Your task to perform on an android device: Search for sushi restaurants on Maps Image 0: 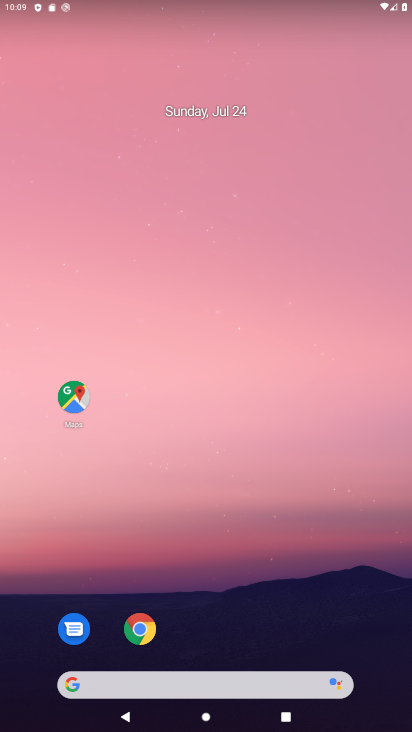
Step 0: drag from (262, 648) to (162, 134)
Your task to perform on an android device: Search for sushi restaurants on Maps Image 1: 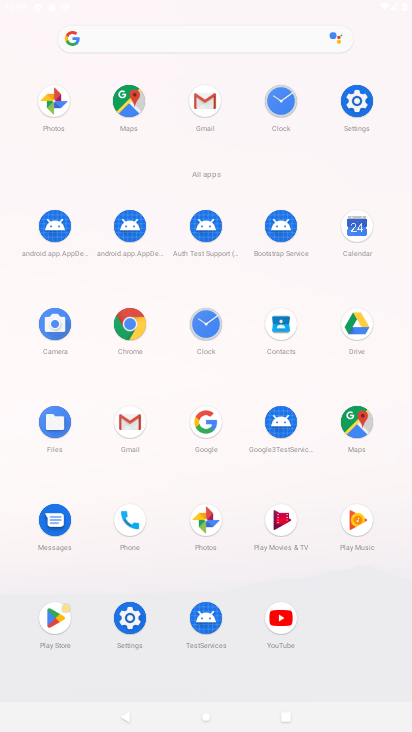
Step 1: click (133, 108)
Your task to perform on an android device: Search for sushi restaurants on Maps Image 2: 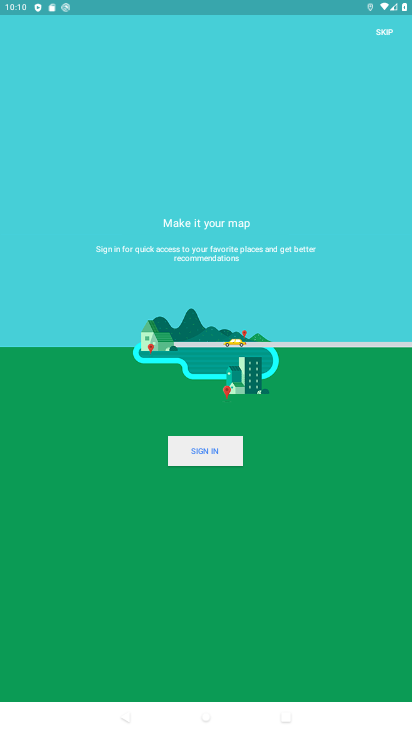
Step 2: click (389, 33)
Your task to perform on an android device: Search for sushi restaurants on Maps Image 3: 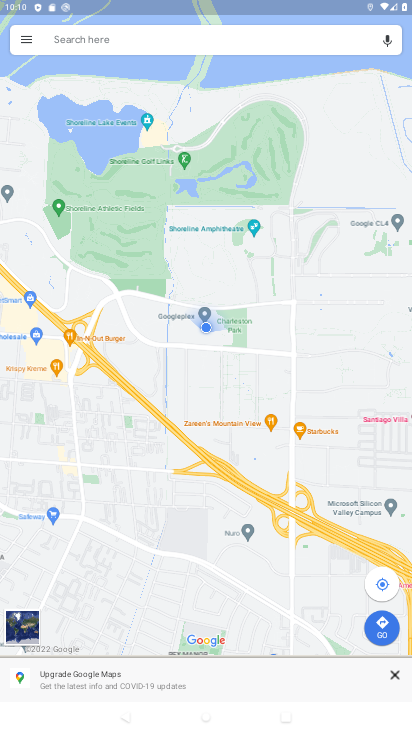
Step 3: click (126, 46)
Your task to perform on an android device: Search for sushi restaurants on Maps Image 4: 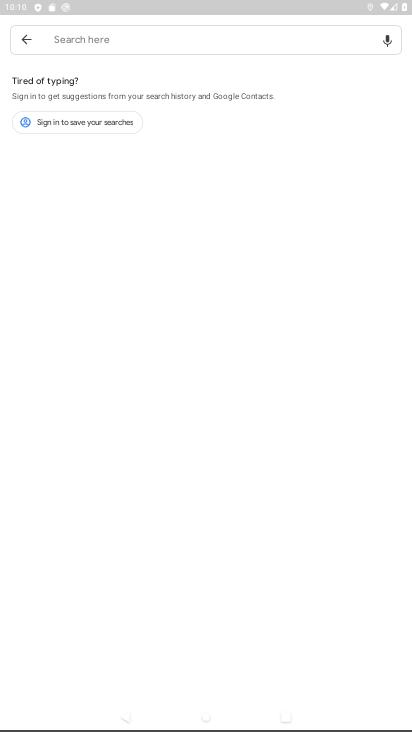
Step 4: type "sushi restaurants"
Your task to perform on an android device: Search for sushi restaurants on Maps Image 5: 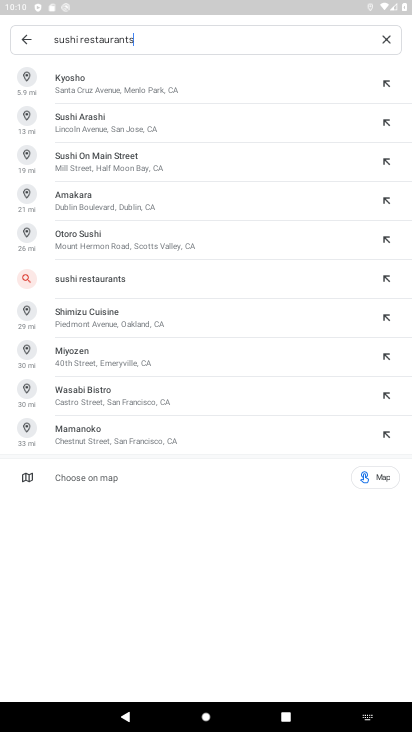
Step 5: click (244, 282)
Your task to perform on an android device: Search for sushi restaurants on Maps Image 6: 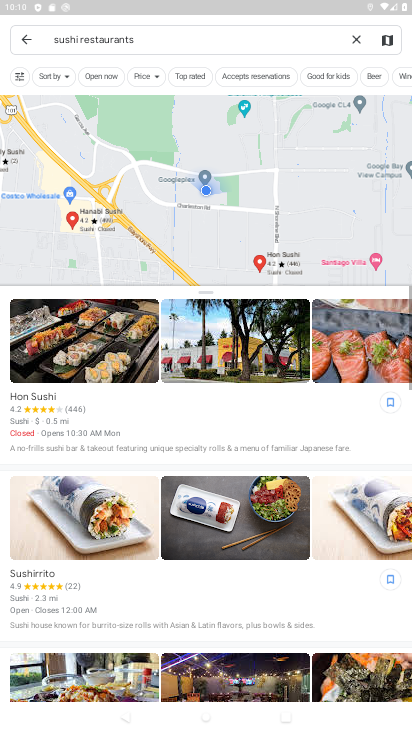
Step 6: task complete